Your task to perform on an android device: set the stopwatch Image 0: 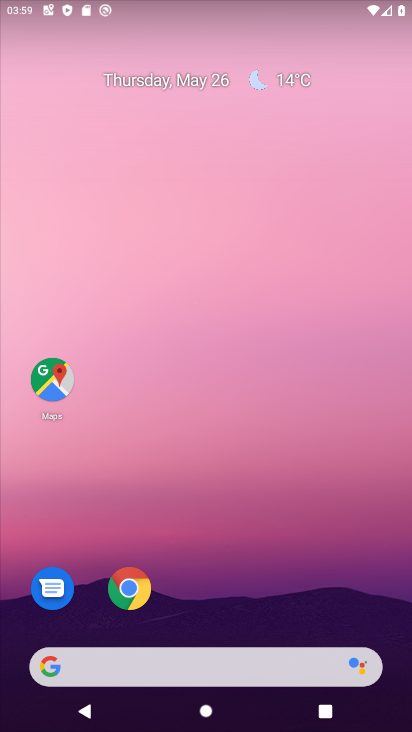
Step 0: drag from (297, 588) to (284, 107)
Your task to perform on an android device: set the stopwatch Image 1: 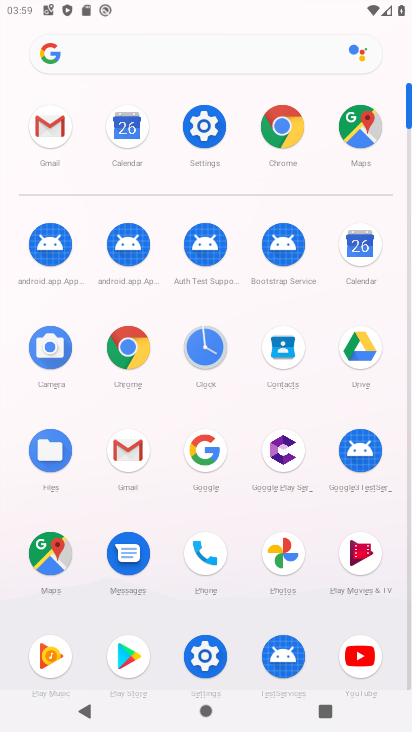
Step 1: click (202, 345)
Your task to perform on an android device: set the stopwatch Image 2: 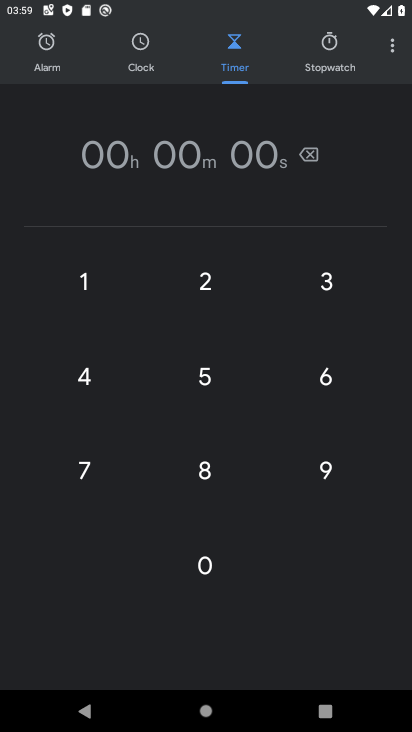
Step 2: click (309, 60)
Your task to perform on an android device: set the stopwatch Image 3: 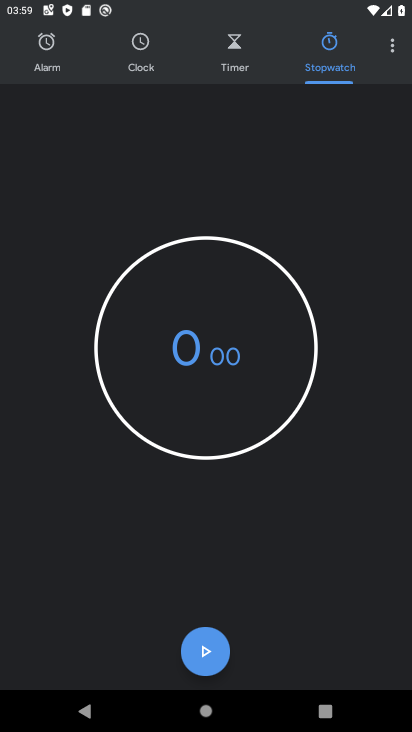
Step 3: task complete